Your task to perform on an android device: check storage Image 0: 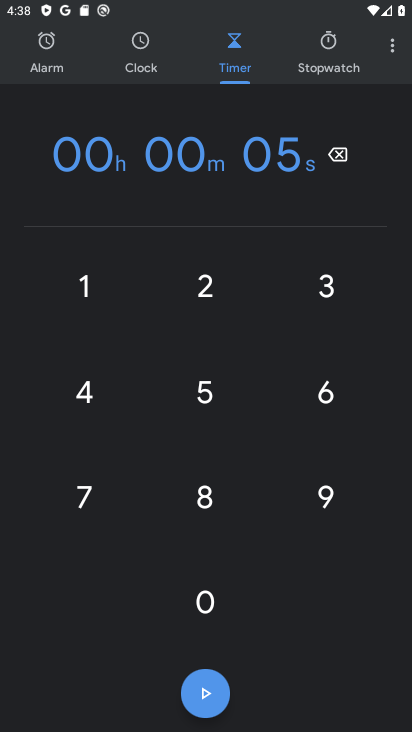
Step 0: press home button
Your task to perform on an android device: check storage Image 1: 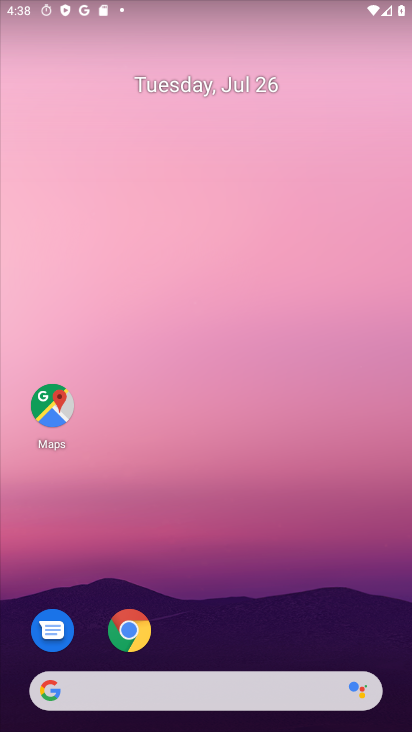
Step 1: drag from (323, 618) to (255, 176)
Your task to perform on an android device: check storage Image 2: 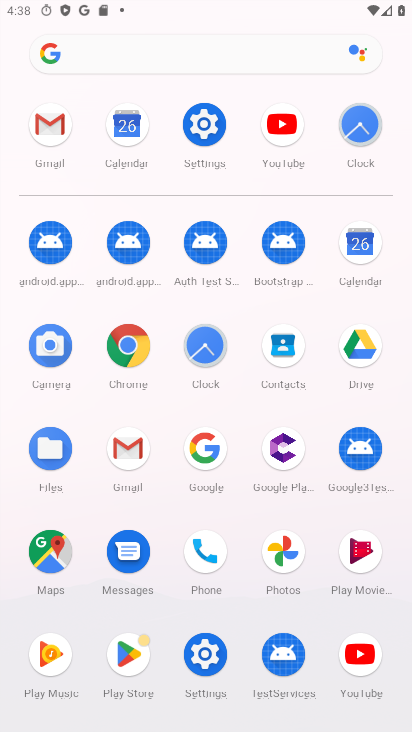
Step 2: click (202, 128)
Your task to perform on an android device: check storage Image 3: 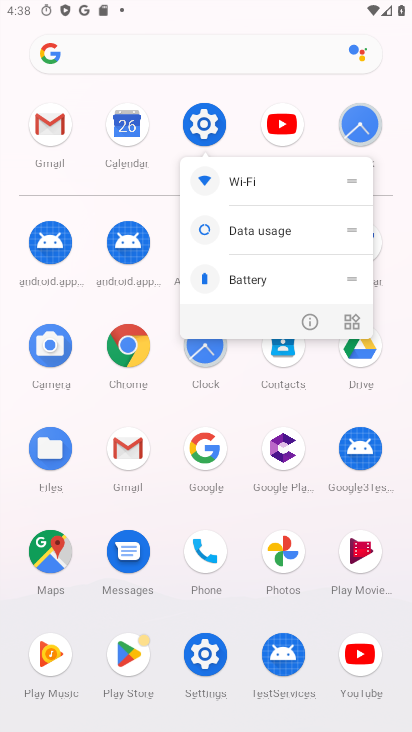
Step 3: click (198, 121)
Your task to perform on an android device: check storage Image 4: 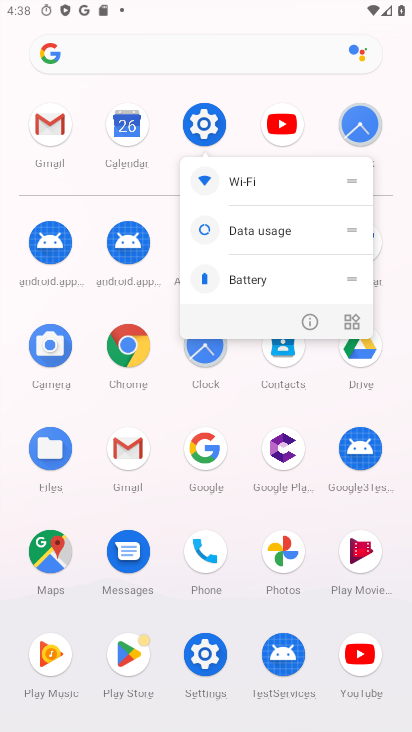
Step 4: click (196, 115)
Your task to perform on an android device: check storage Image 5: 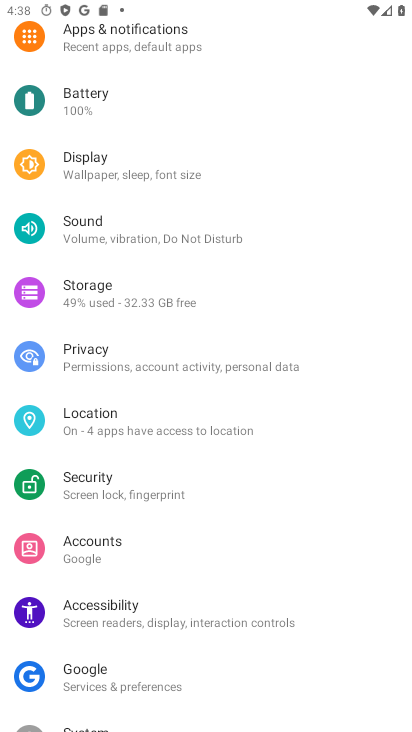
Step 5: click (164, 296)
Your task to perform on an android device: check storage Image 6: 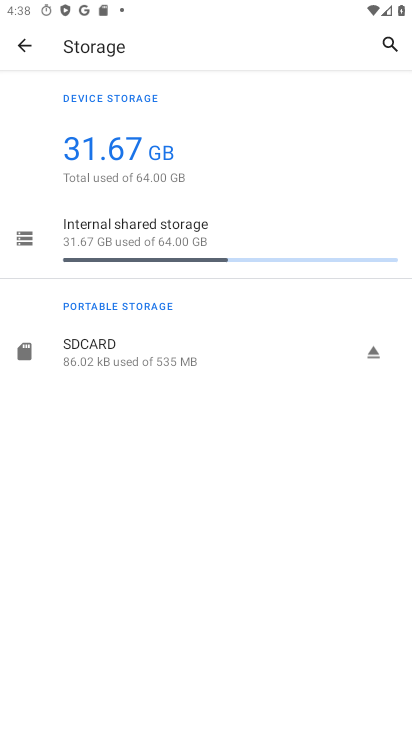
Step 6: task complete